Your task to perform on an android device: Search for flights from Mexico city to Seattle Image 0: 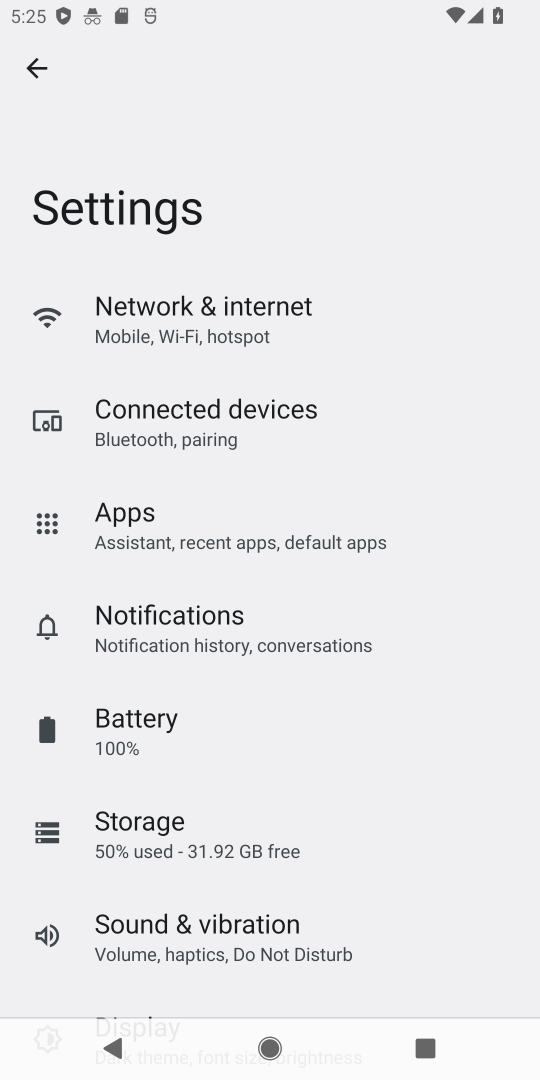
Step 0: press home button
Your task to perform on an android device: Search for flights from Mexico city to Seattle Image 1: 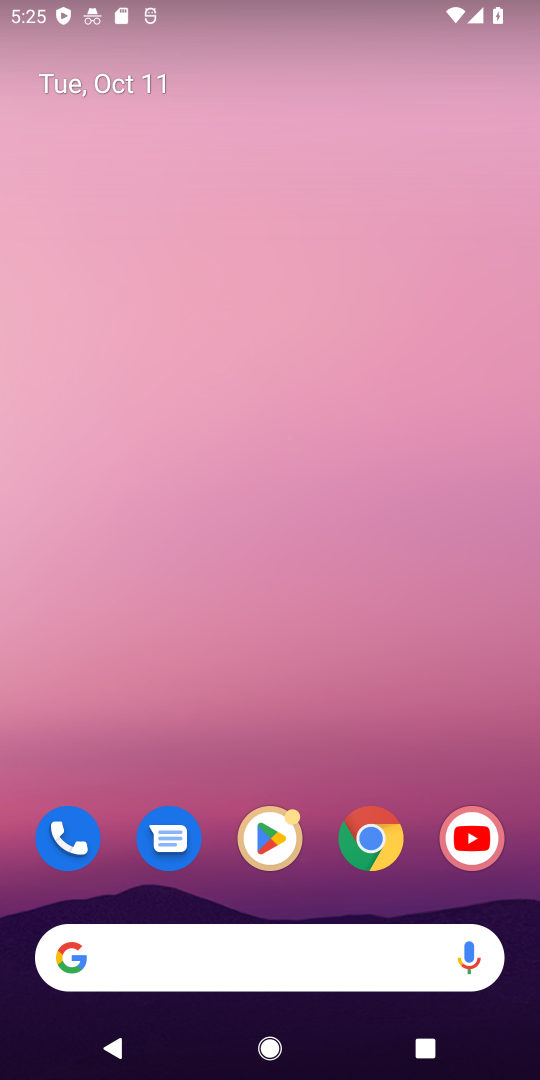
Step 1: click (381, 842)
Your task to perform on an android device: Search for flights from Mexico city to Seattle Image 2: 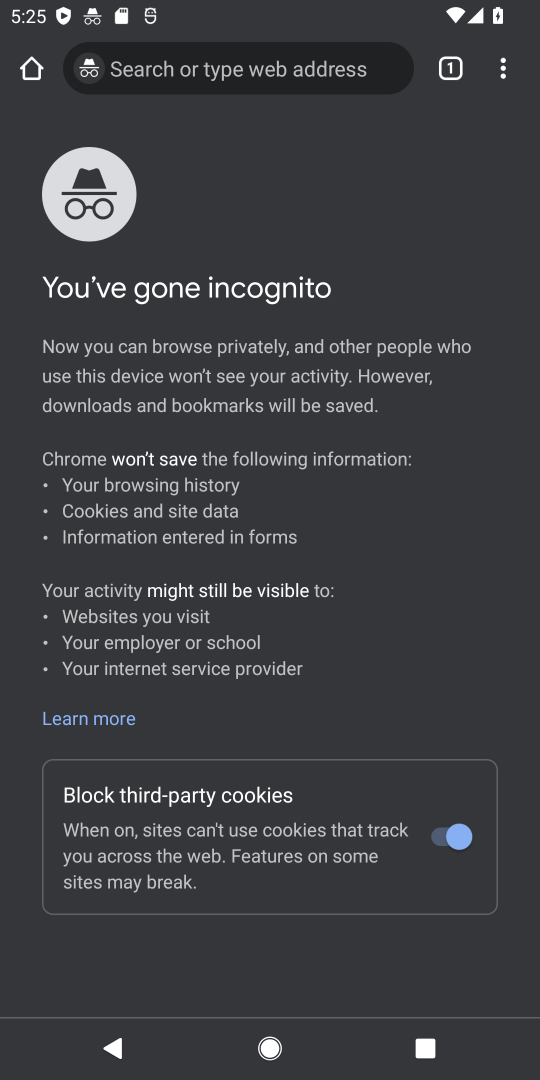
Step 2: click (464, 76)
Your task to perform on an android device: Search for flights from Mexico city to Seattle Image 3: 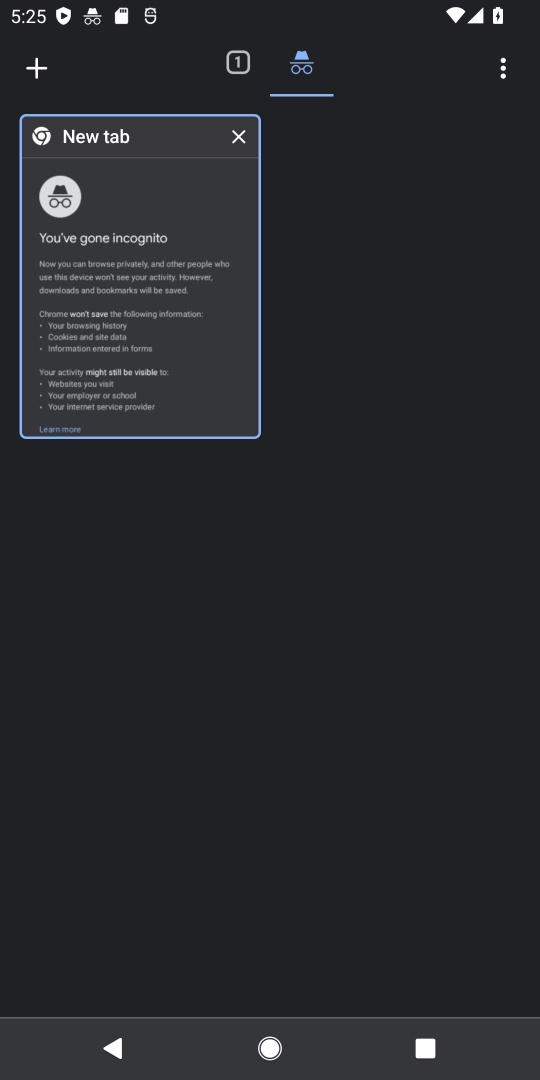
Step 3: click (230, 63)
Your task to perform on an android device: Search for flights from Mexico city to Seattle Image 4: 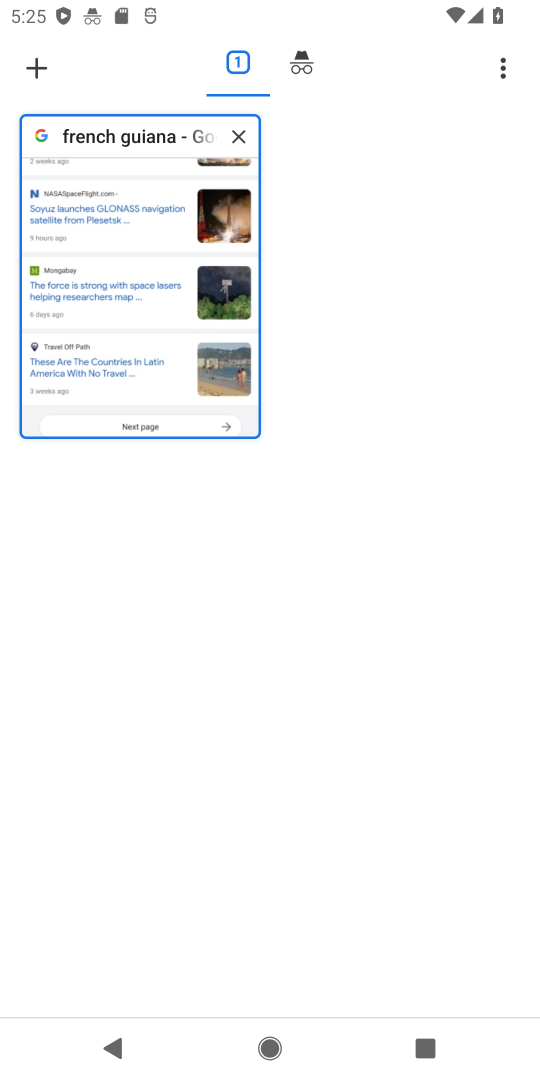
Step 4: click (239, 139)
Your task to perform on an android device: Search for flights from Mexico city to Seattle Image 5: 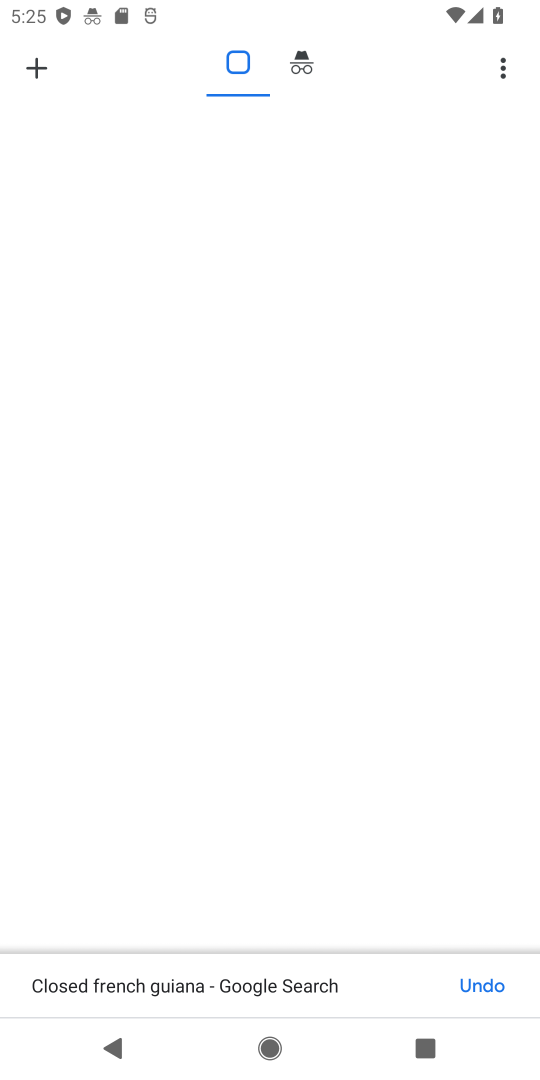
Step 5: click (37, 71)
Your task to perform on an android device: Search for flights from Mexico city to Seattle Image 6: 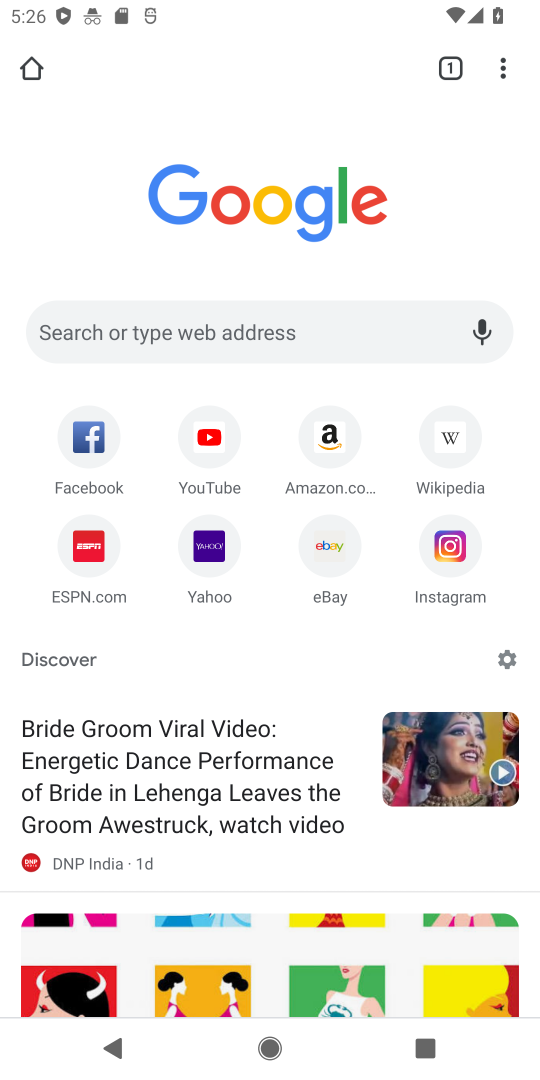
Step 6: click (153, 327)
Your task to perform on an android device: Search for flights from Mexico city to Seattle Image 7: 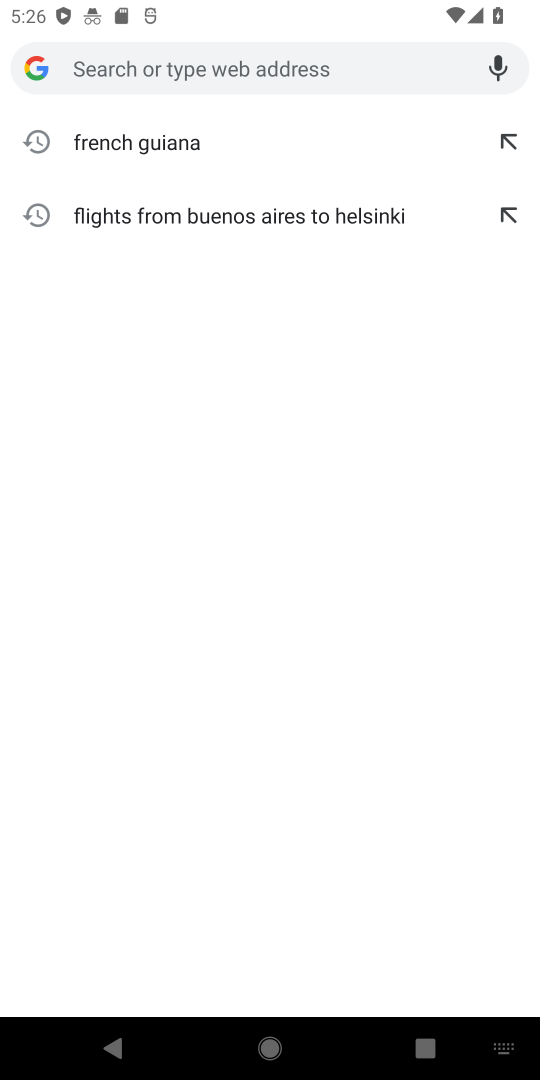
Step 7: type "flights from Mexico city to Seattle"
Your task to perform on an android device: Search for flights from Mexico city to Seattle Image 8: 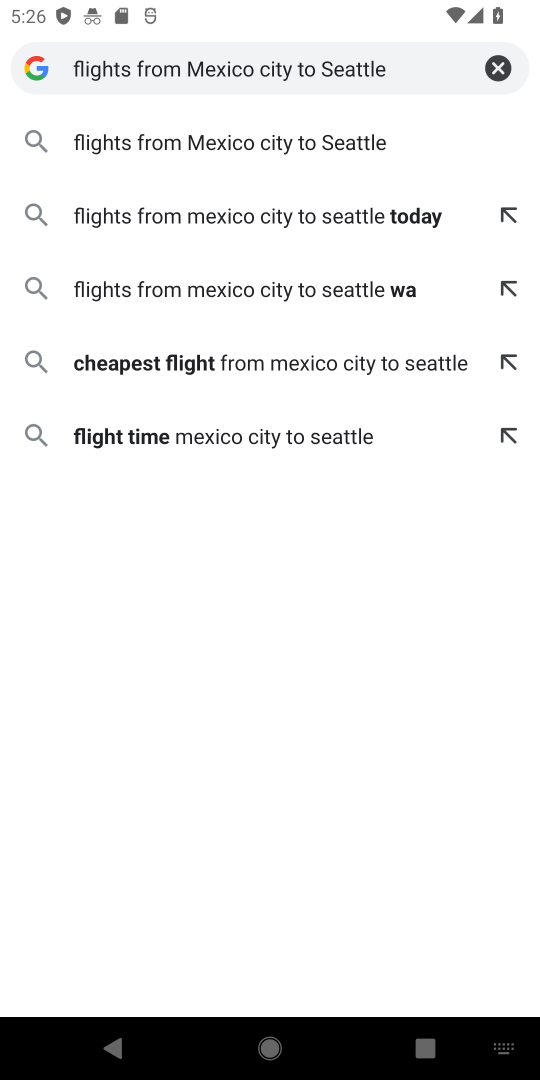
Step 8: click (244, 147)
Your task to perform on an android device: Search for flights from Mexico city to Seattle Image 9: 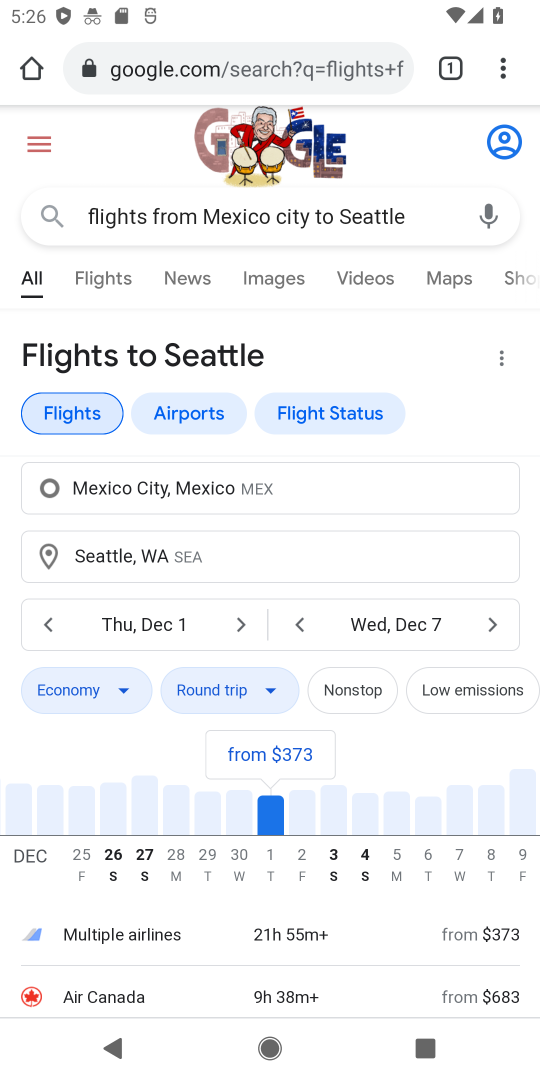
Step 9: drag from (402, 722) to (312, 371)
Your task to perform on an android device: Search for flights from Mexico city to Seattle Image 10: 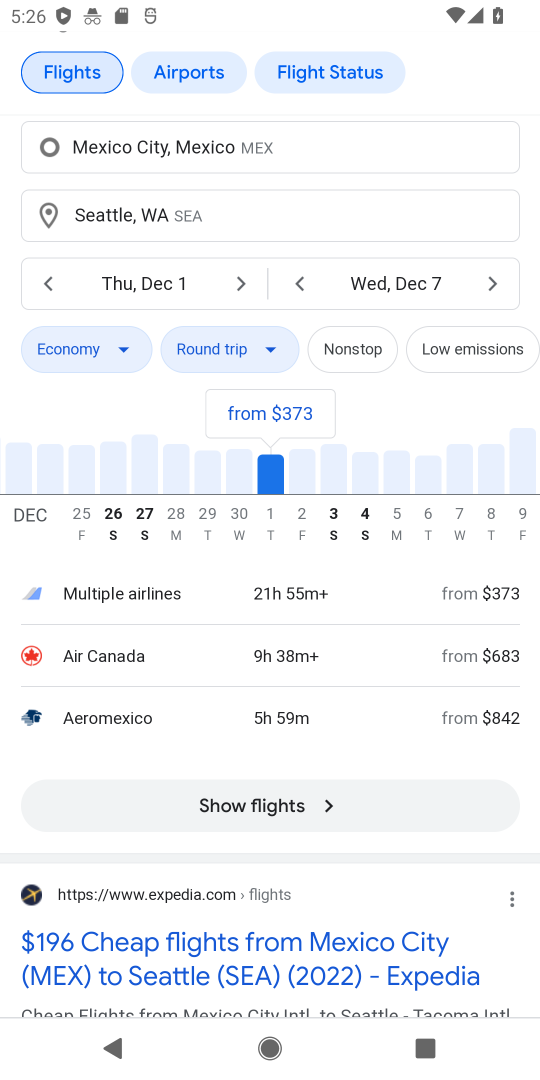
Step 10: click (251, 804)
Your task to perform on an android device: Search for flights from Mexico city to Seattle Image 11: 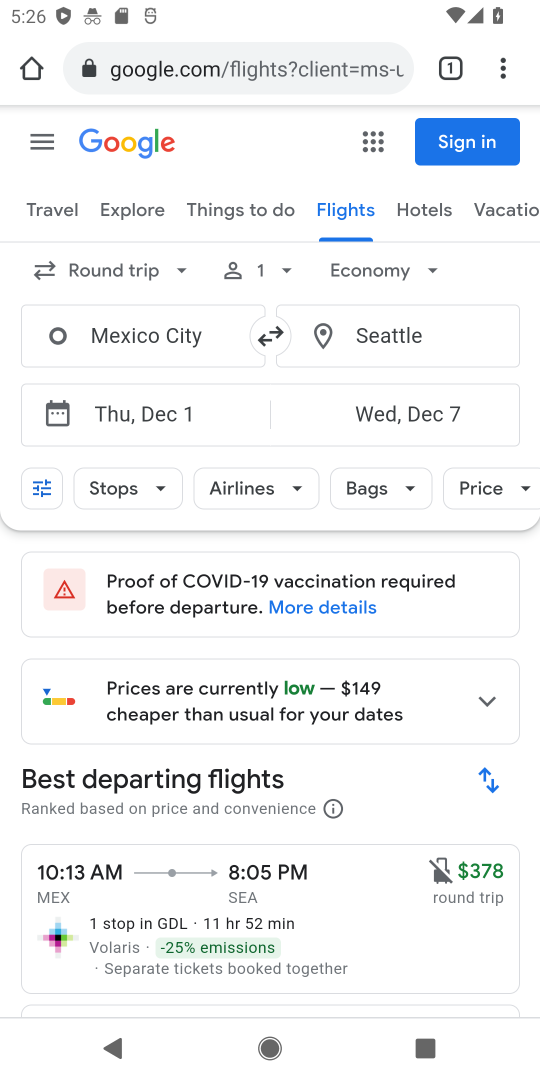
Step 11: task complete